Your task to perform on an android device: What's on my calendar today? Image 0: 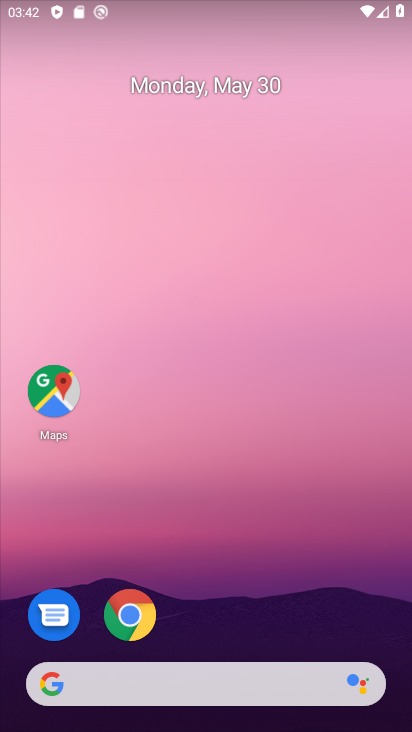
Step 0: drag from (253, 599) to (206, 86)
Your task to perform on an android device: What's on my calendar today? Image 1: 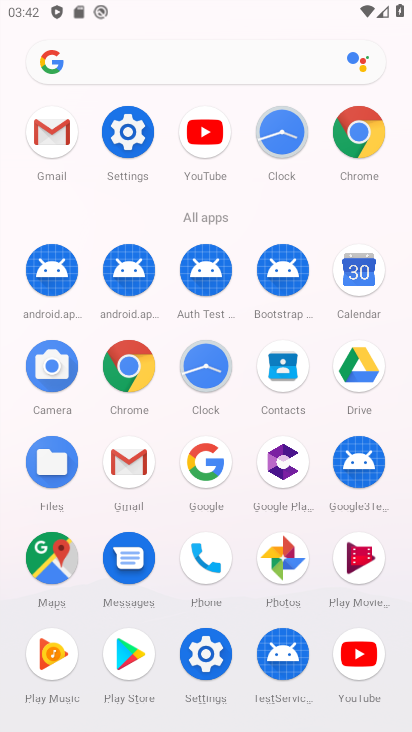
Step 1: click (359, 273)
Your task to perform on an android device: What's on my calendar today? Image 2: 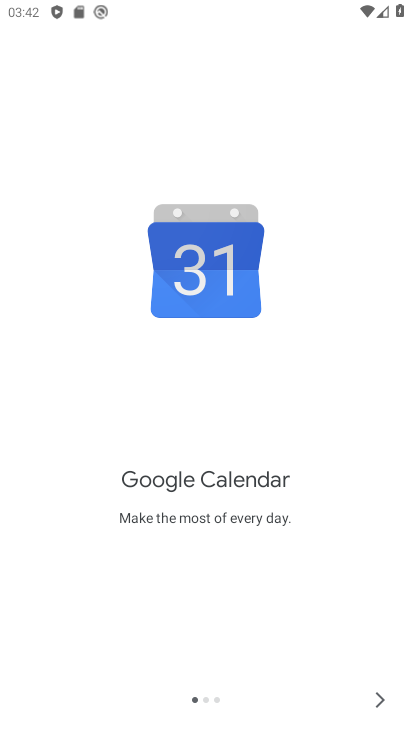
Step 2: click (383, 698)
Your task to perform on an android device: What's on my calendar today? Image 3: 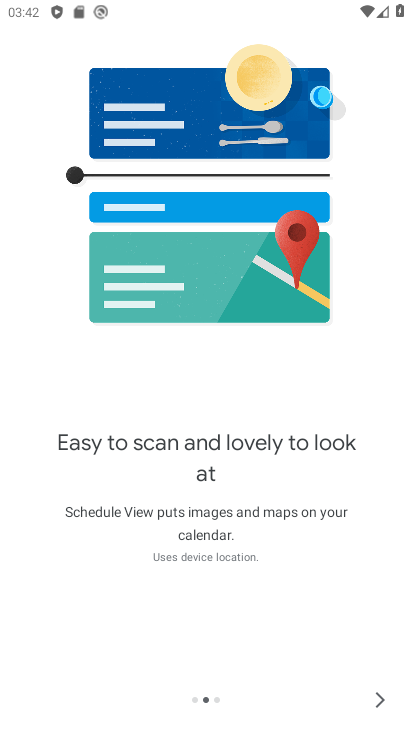
Step 3: click (383, 698)
Your task to perform on an android device: What's on my calendar today? Image 4: 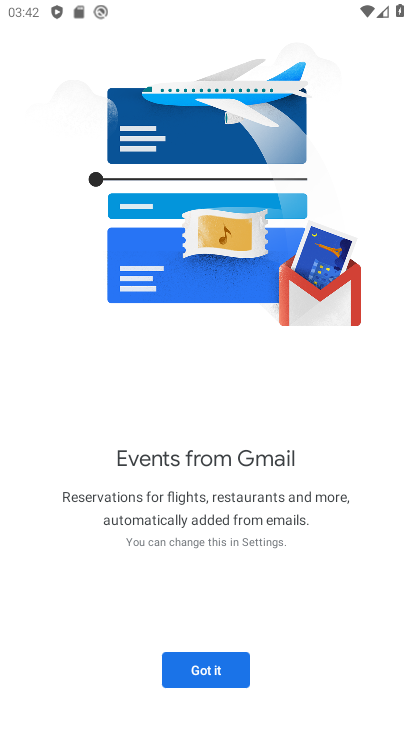
Step 4: click (202, 669)
Your task to perform on an android device: What's on my calendar today? Image 5: 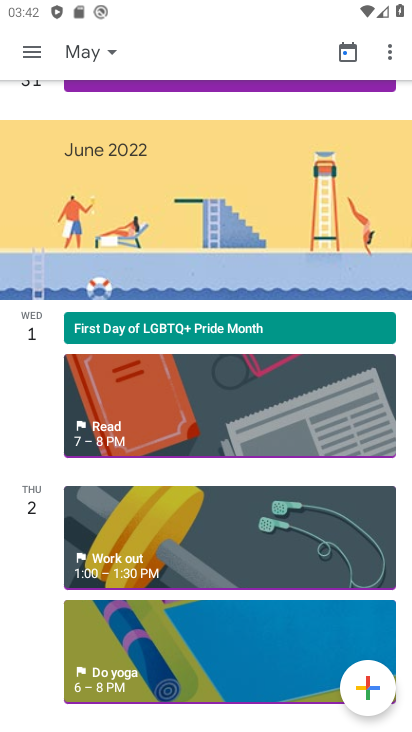
Step 5: click (111, 53)
Your task to perform on an android device: What's on my calendar today? Image 6: 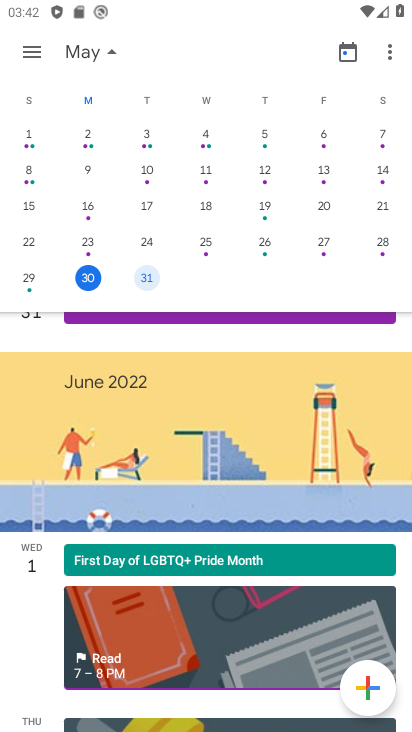
Step 6: click (350, 50)
Your task to perform on an android device: What's on my calendar today? Image 7: 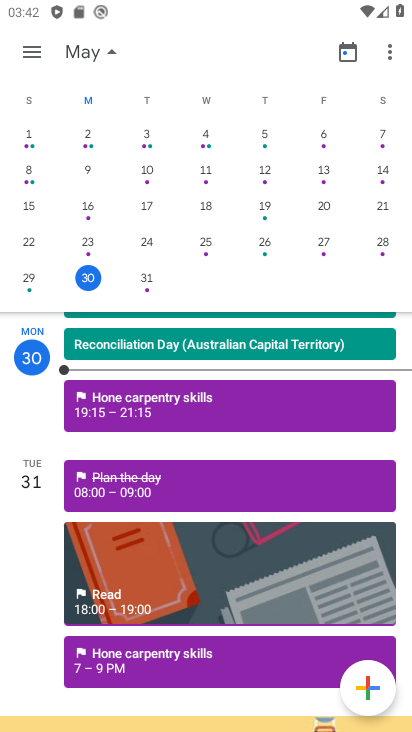
Step 7: click (134, 410)
Your task to perform on an android device: What's on my calendar today? Image 8: 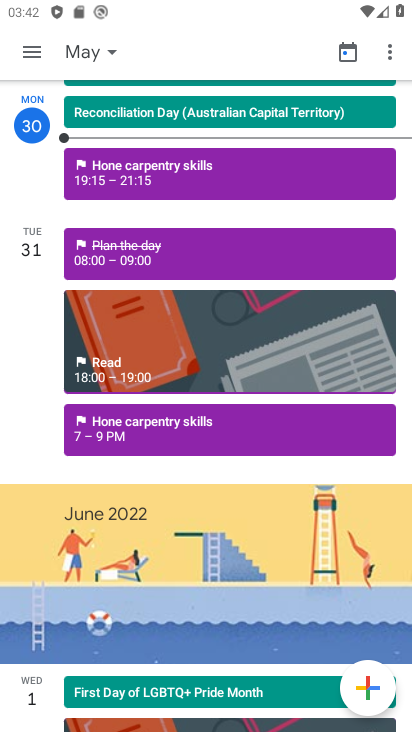
Step 8: task complete